Your task to perform on an android device: search for starred emails in the gmail app Image 0: 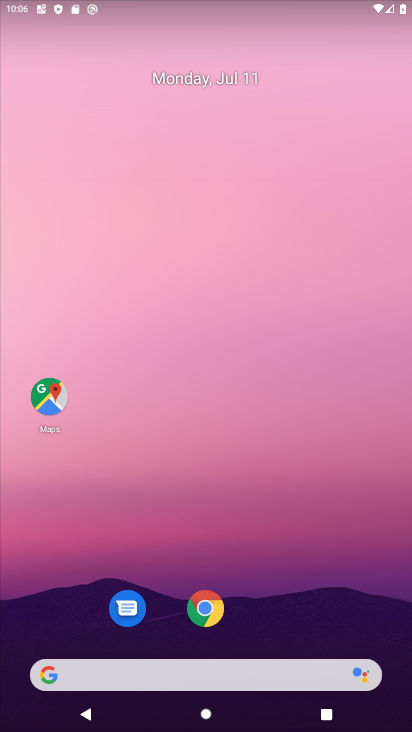
Step 0: drag from (21, 713) to (225, 166)
Your task to perform on an android device: search for starred emails in the gmail app Image 1: 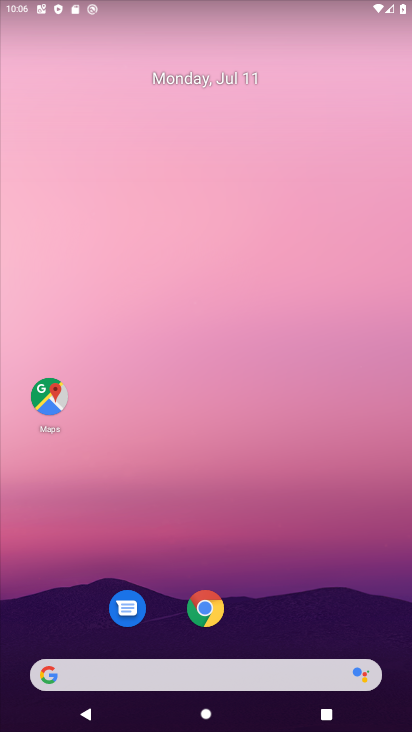
Step 1: drag from (27, 702) to (403, 591)
Your task to perform on an android device: search for starred emails in the gmail app Image 2: 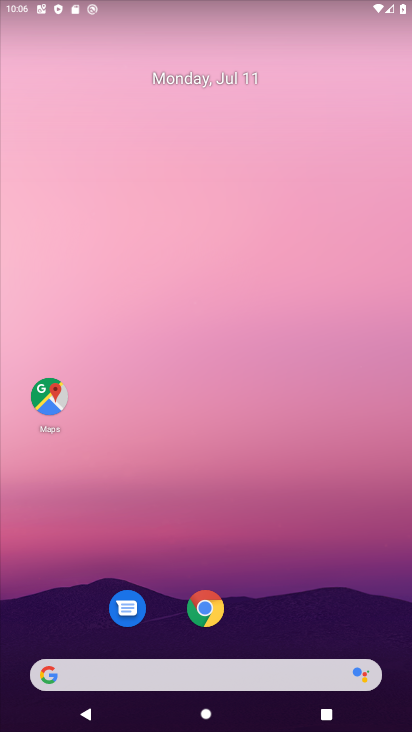
Step 2: drag from (108, 462) to (225, 1)
Your task to perform on an android device: search for starred emails in the gmail app Image 3: 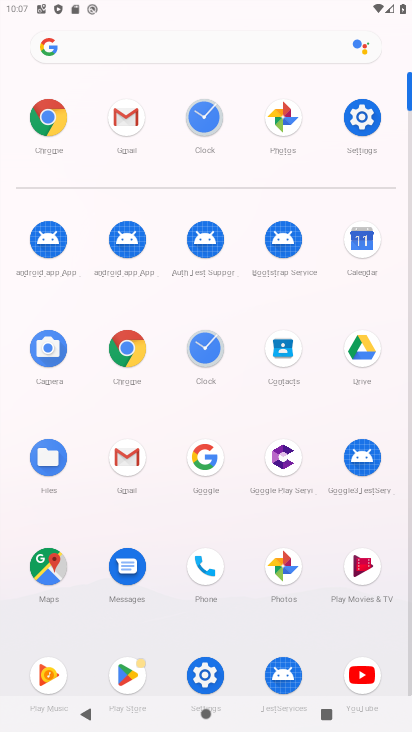
Step 3: click (131, 460)
Your task to perform on an android device: search for starred emails in the gmail app Image 4: 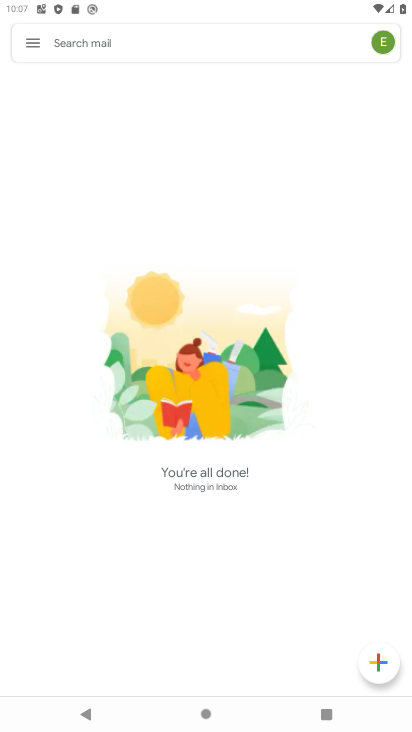
Step 4: click (21, 46)
Your task to perform on an android device: search for starred emails in the gmail app Image 5: 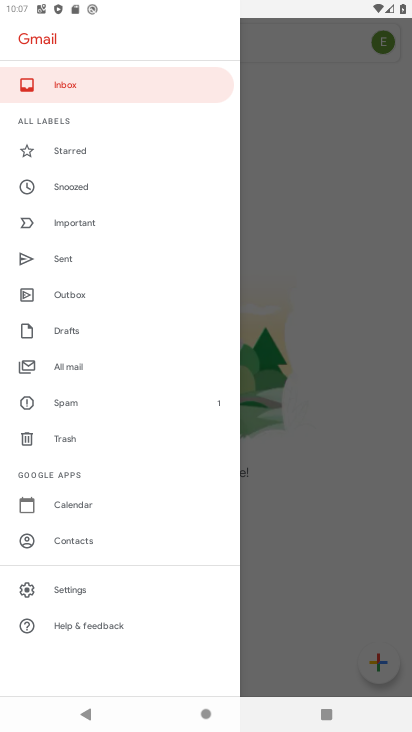
Step 5: click (113, 80)
Your task to perform on an android device: search for starred emails in the gmail app Image 6: 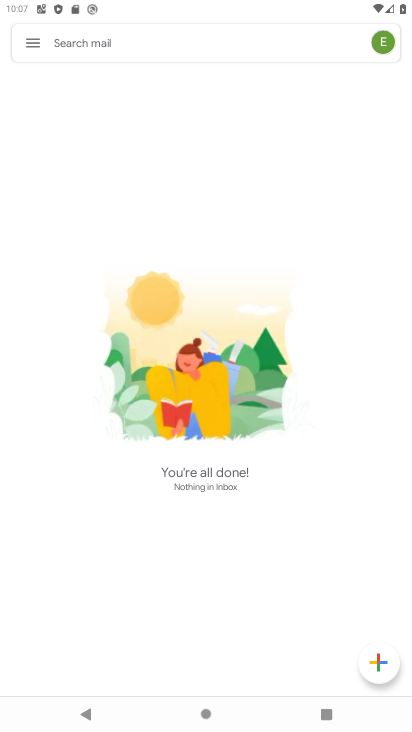
Step 6: task complete